Your task to perform on an android device: Open battery settings Image 0: 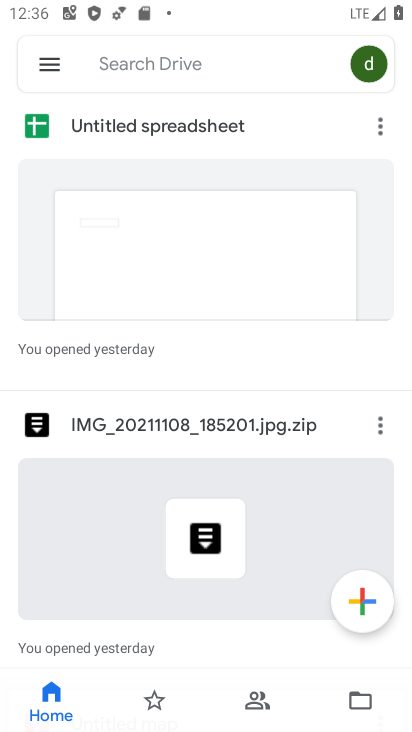
Step 0: press home button
Your task to perform on an android device: Open battery settings Image 1: 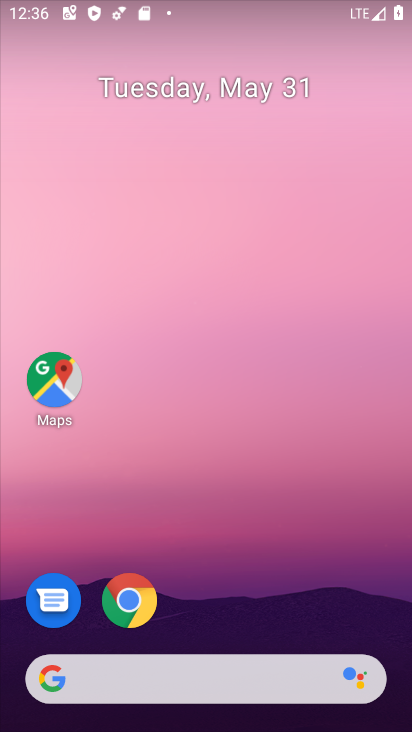
Step 1: drag from (224, 724) to (202, 117)
Your task to perform on an android device: Open battery settings Image 2: 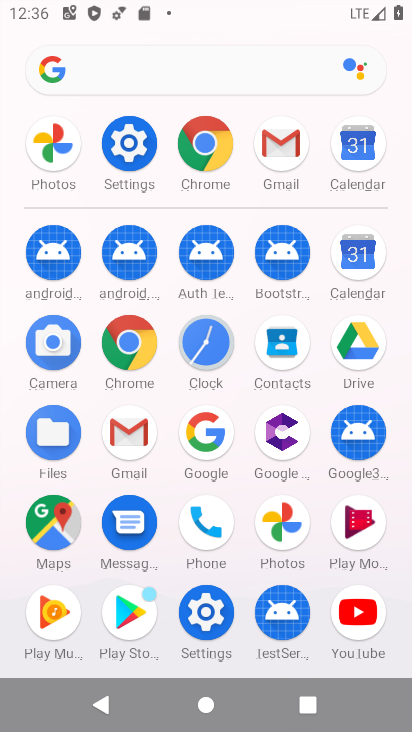
Step 2: click (123, 149)
Your task to perform on an android device: Open battery settings Image 3: 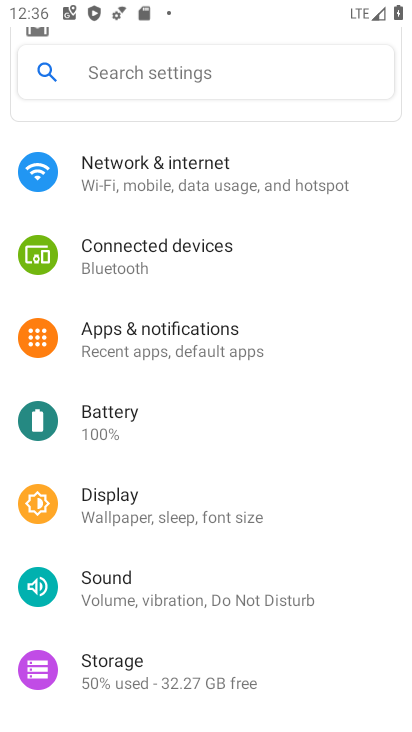
Step 3: click (86, 423)
Your task to perform on an android device: Open battery settings Image 4: 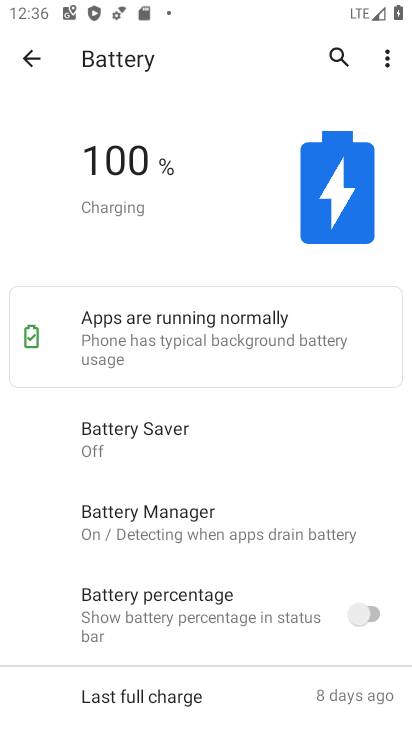
Step 4: task complete